Your task to perform on an android device: uninstall "Contacts" Image 0: 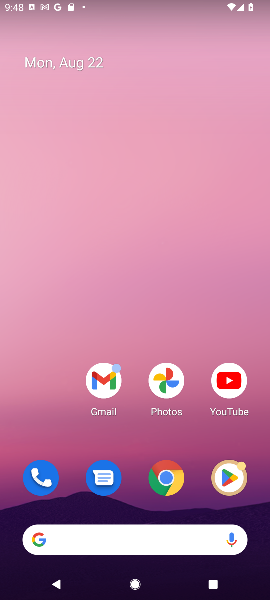
Step 0: drag from (134, 504) to (153, 107)
Your task to perform on an android device: uninstall "Contacts" Image 1: 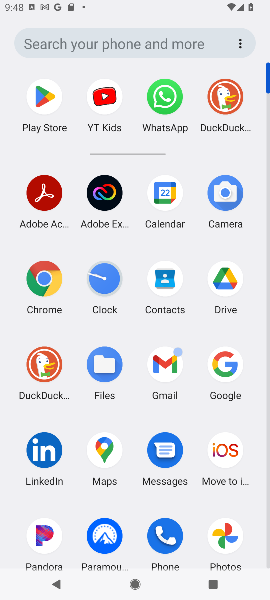
Step 1: click (176, 299)
Your task to perform on an android device: uninstall "Contacts" Image 2: 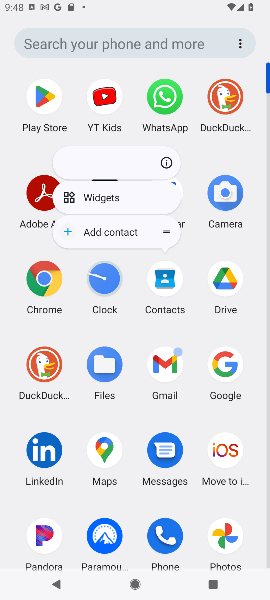
Step 2: task complete